Your task to perform on an android device: Open the calendar and show me this week's events Image 0: 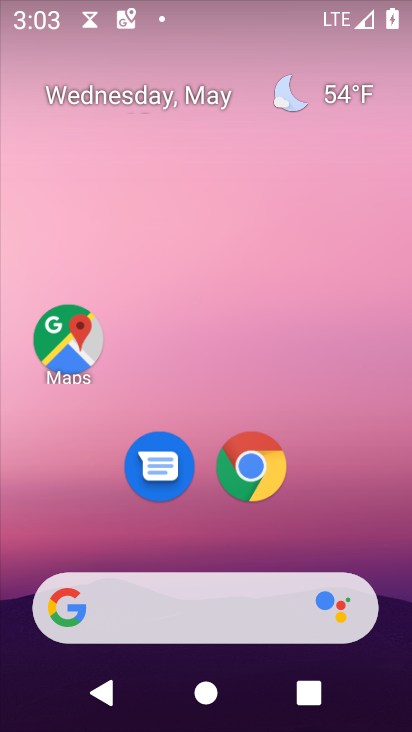
Step 0: drag from (386, 529) to (367, 195)
Your task to perform on an android device: Open the calendar and show me this week's events Image 1: 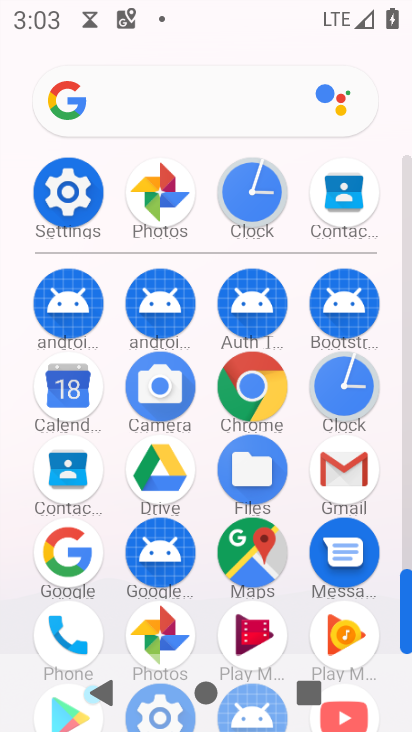
Step 1: click (71, 408)
Your task to perform on an android device: Open the calendar and show me this week's events Image 2: 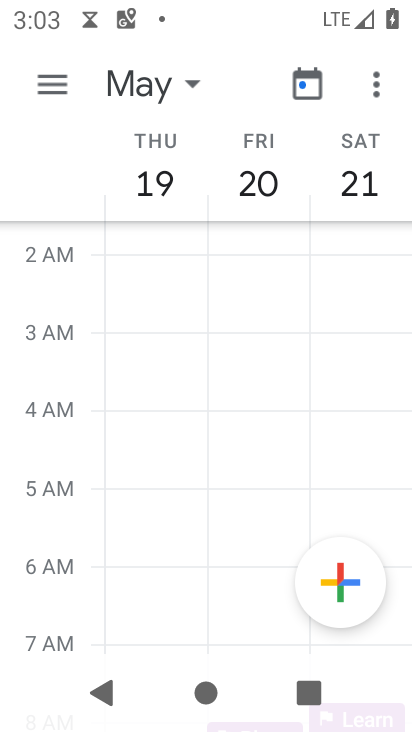
Step 2: click (64, 92)
Your task to perform on an android device: Open the calendar and show me this week's events Image 3: 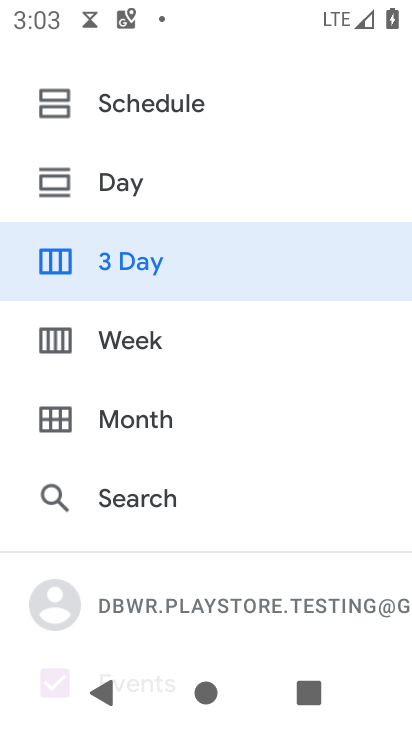
Step 3: click (164, 357)
Your task to perform on an android device: Open the calendar and show me this week's events Image 4: 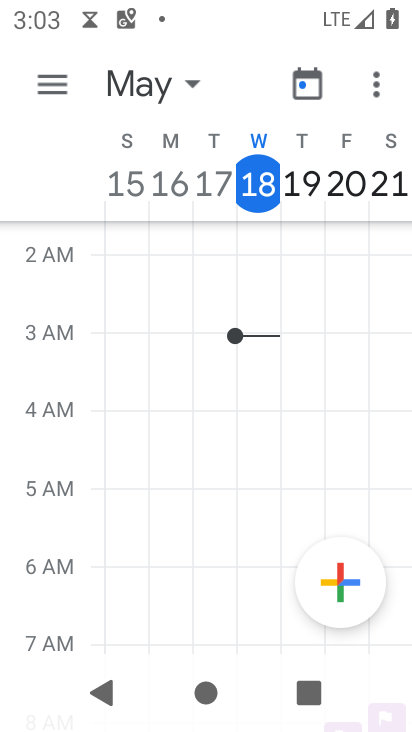
Step 4: task complete